Your task to perform on an android device: turn off picture-in-picture Image 0: 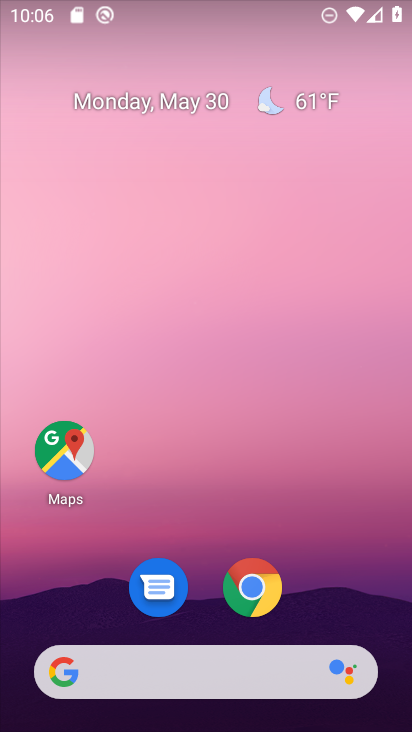
Step 0: drag from (188, 644) to (144, 2)
Your task to perform on an android device: turn off picture-in-picture Image 1: 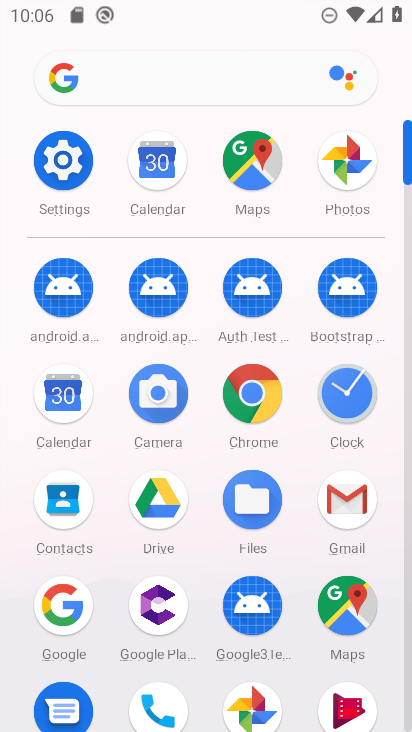
Step 1: click (65, 172)
Your task to perform on an android device: turn off picture-in-picture Image 2: 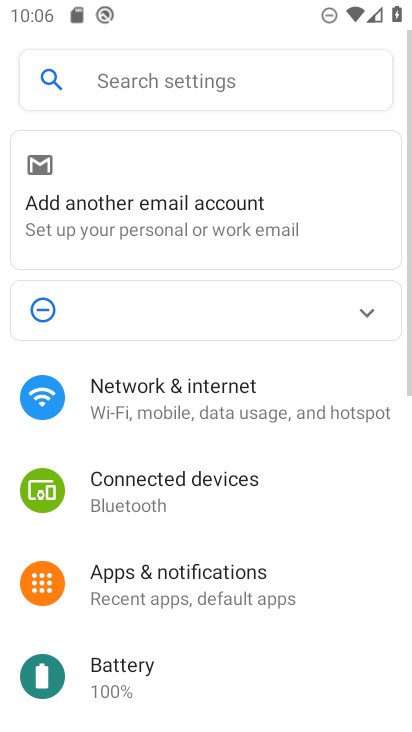
Step 2: drag from (158, 625) to (121, 366)
Your task to perform on an android device: turn off picture-in-picture Image 3: 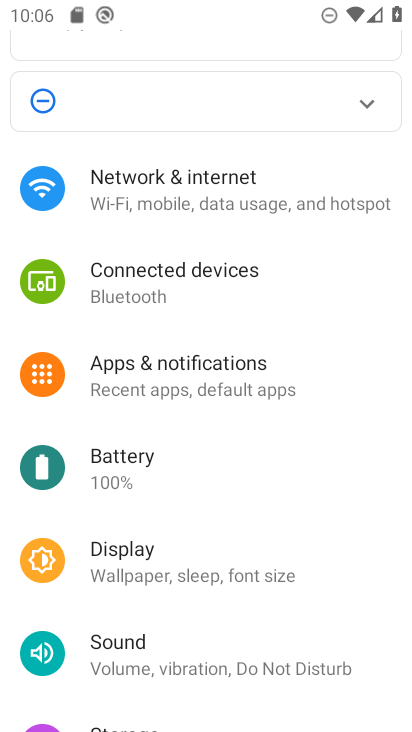
Step 3: click (130, 409)
Your task to perform on an android device: turn off picture-in-picture Image 4: 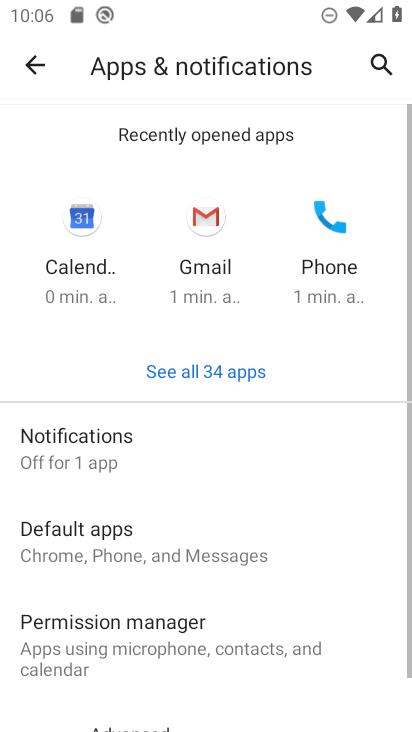
Step 4: click (144, 444)
Your task to perform on an android device: turn off picture-in-picture Image 5: 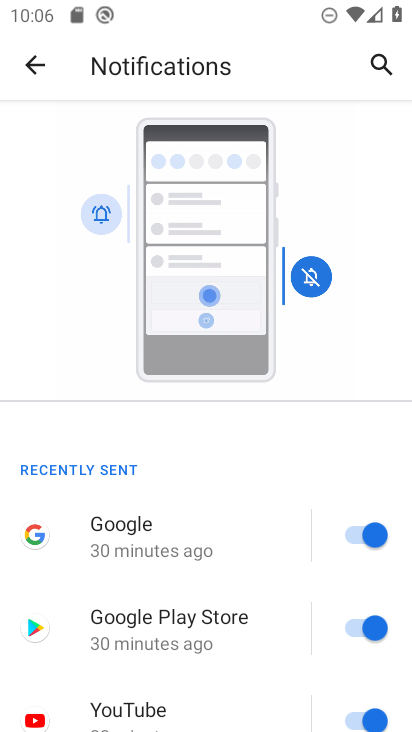
Step 5: task complete